Your task to perform on an android device: turn on wifi Image 0: 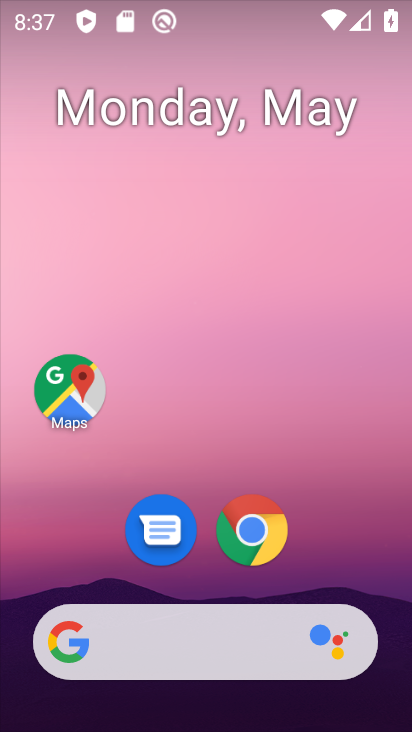
Step 0: drag from (156, 657) to (195, 16)
Your task to perform on an android device: turn on wifi Image 1: 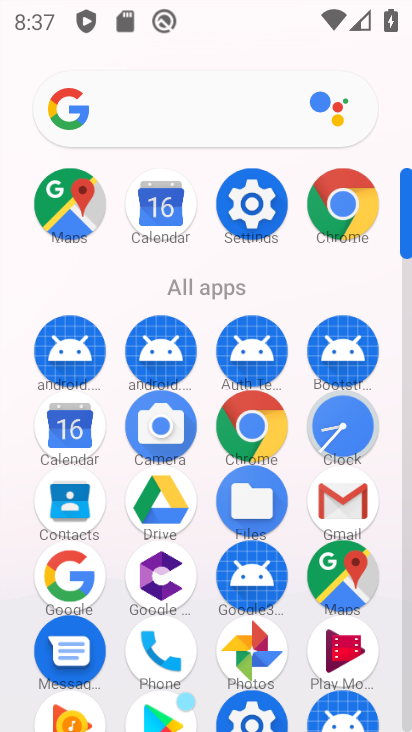
Step 1: click (224, 201)
Your task to perform on an android device: turn on wifi Image 2: 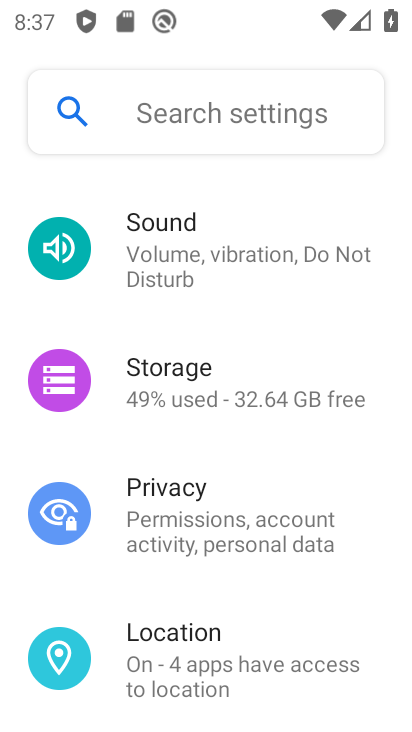
Step 2: drag from (236, 211) to (219, 576)
Your task to perform on an android device: turn on wifi Image 3: 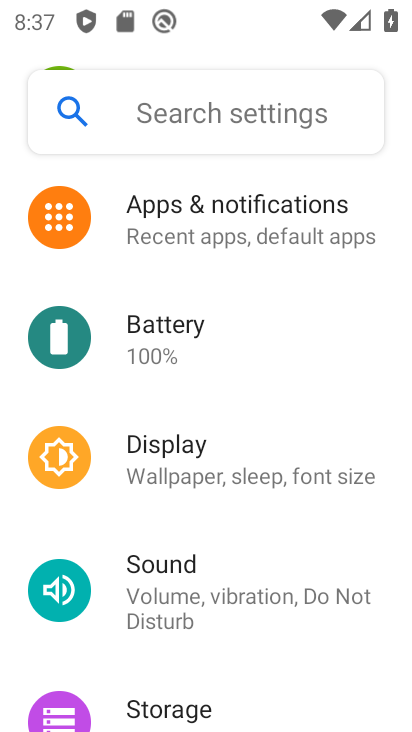
Step 3: click (193, 144)
Your task to perform on an android device: turn on wifi Image 4: 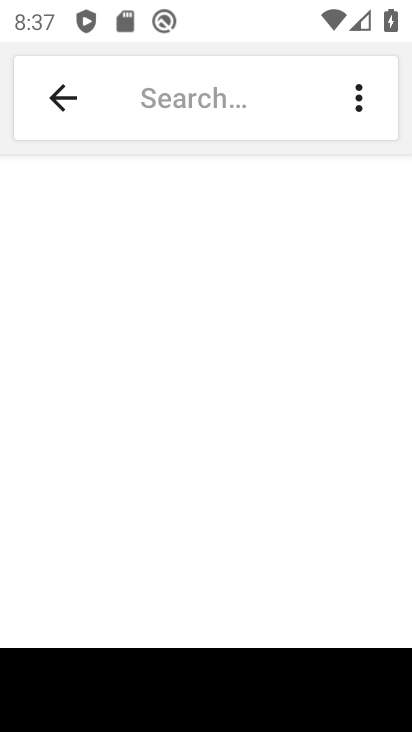
Step 4: press home button
Your task to perform on an android device: turn on wifi Image 5: 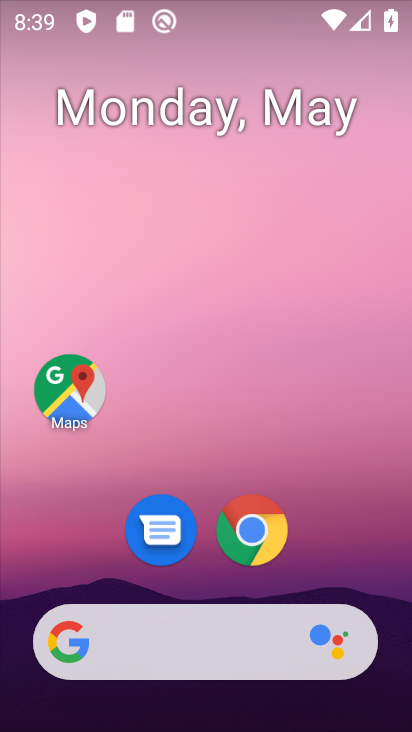
Step 5: drag from (170, 628) to (200, 153)
Your task to perform on an android device: turn on wifi Image 6: 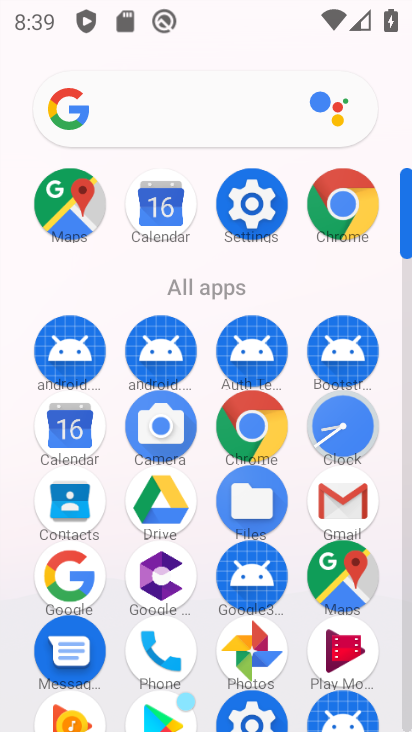
Step 6: click (268, 208)
Your task to perform on an android device: turn on wifi Image 7: 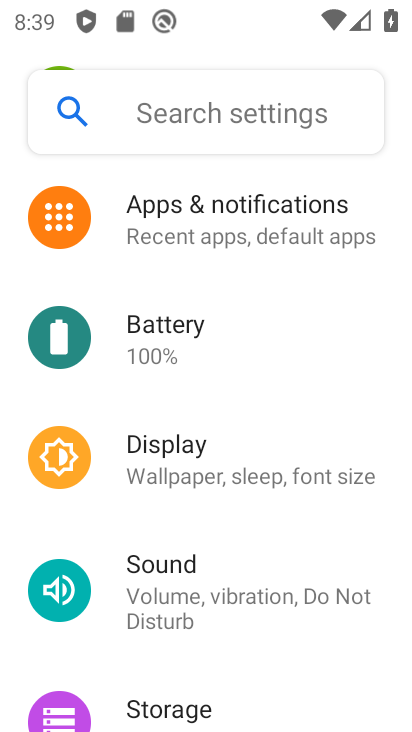
Step 7: drag from (211, 232) to (184, 601)
Your task to perform on an android device: turn on wifi Image 8: 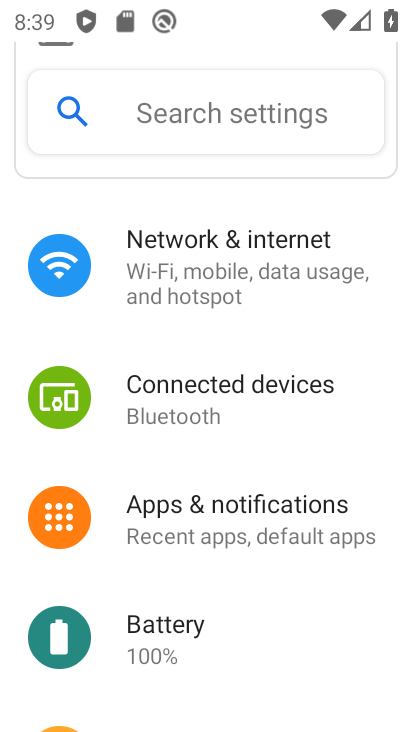
Step 8: click (165, 303)
Your task to perform on an android device: turn on wifi Image 9: 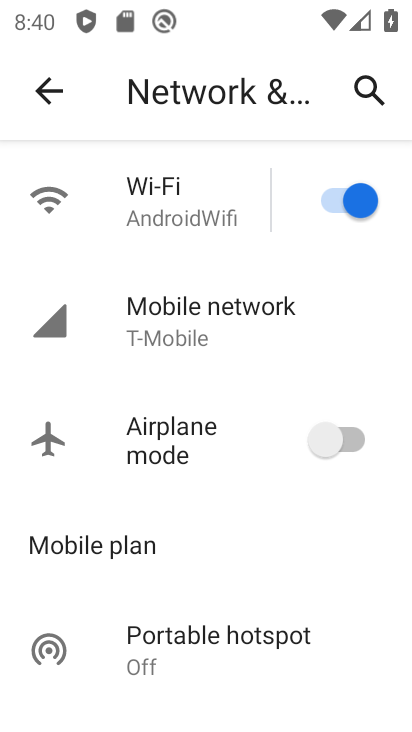
Step 9: task complete